Your task to perform on an android device: Open calendar and show me the first week of next month Image 0: 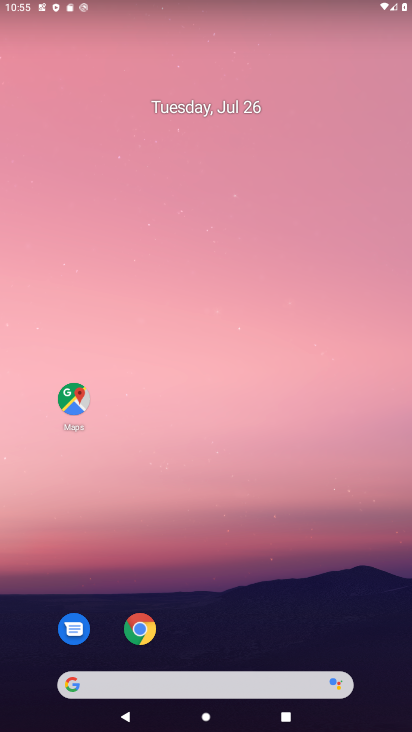
Step 0: drag from (223, 518) to (243, 177)
Your task to perform on an android device: Open calendar and show me the first week of next month Image 1: 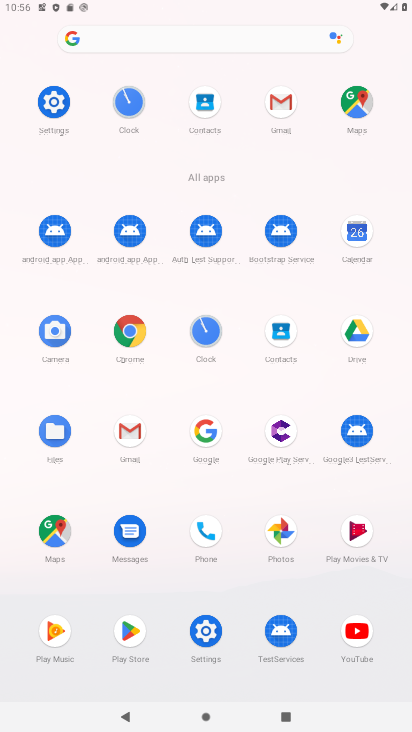
Step 1: click (357, 240)
Your task to perform on an android device: Open calendar and show me the first week of next month Image 2: 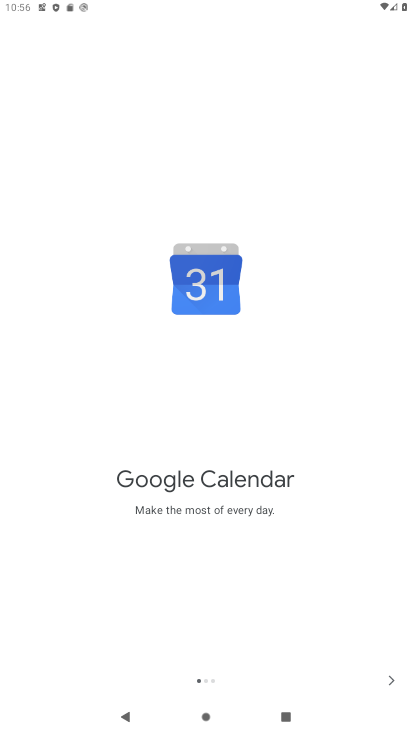
Step 2: click (390, 682)
Your task to perform on an android device: Open calendar and show me the first week of next month Image 3: 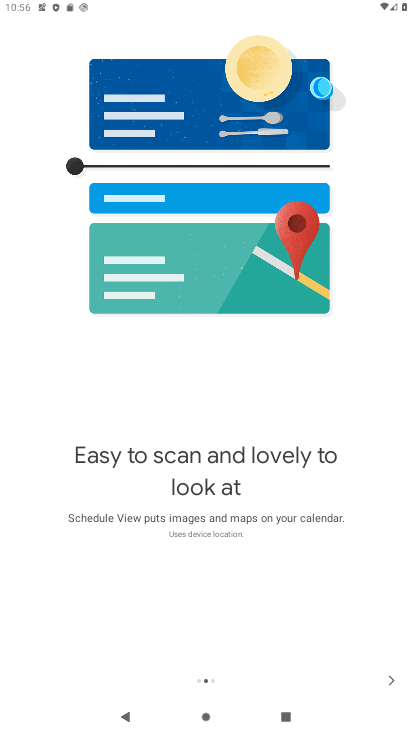
Step 3: click (390, 682)
Your task to perform on an android device: Open calendar and show me the first week of next month Image 4: 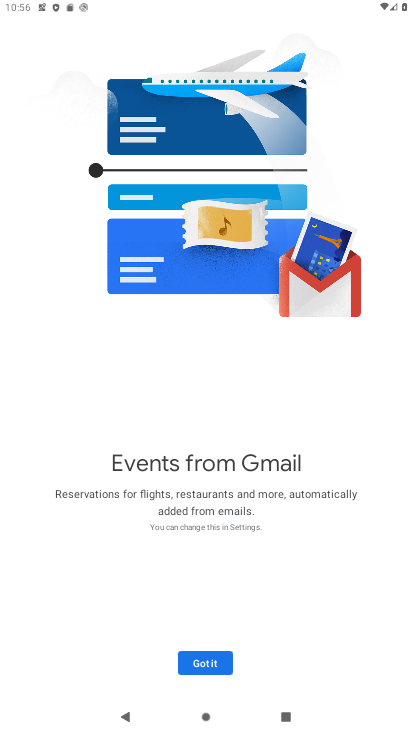
Step 4: click (214, 651)
Your task to perform on an android device: Open calendar and show me the first week of next month Image 5: 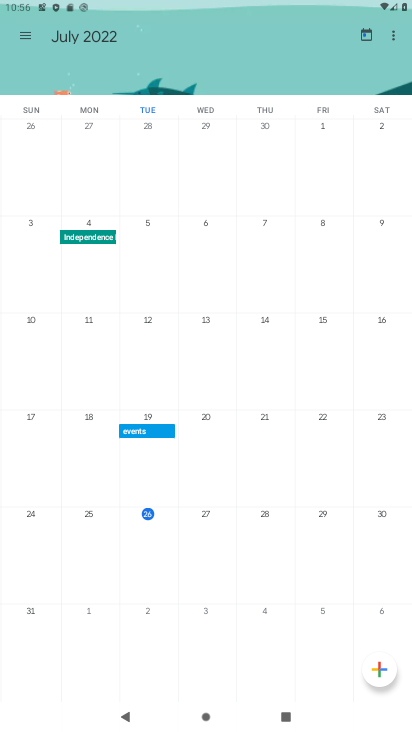
Step 5: click (96, 34)
Your task to perform on an android device: Open calendar and show me the first week of next month Image 6: 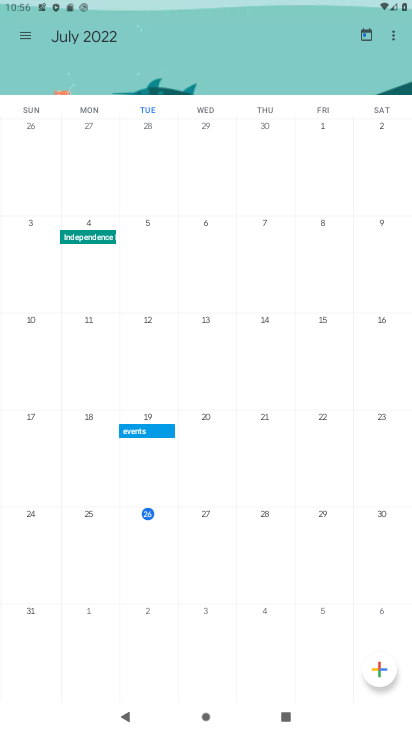
Step 6: click (96, 34)
Your task to perform on an android device: Open calendar and show me the first week of next month Image 7: 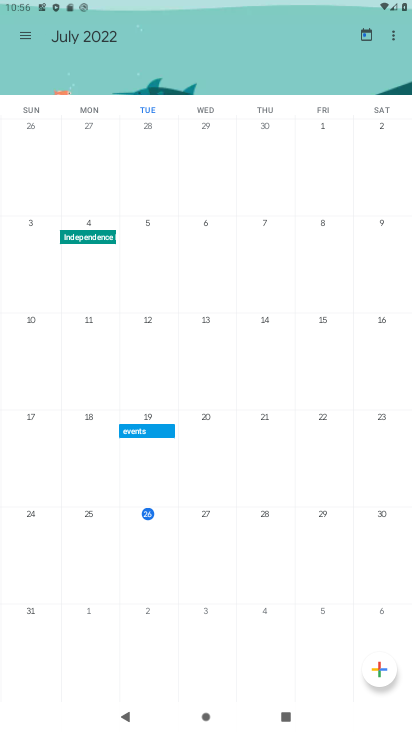
Step 7: drag from (96, 34) to (8, 123)
Your task to perform on an android device: Open calendar and show me the first week of next month Image 8: 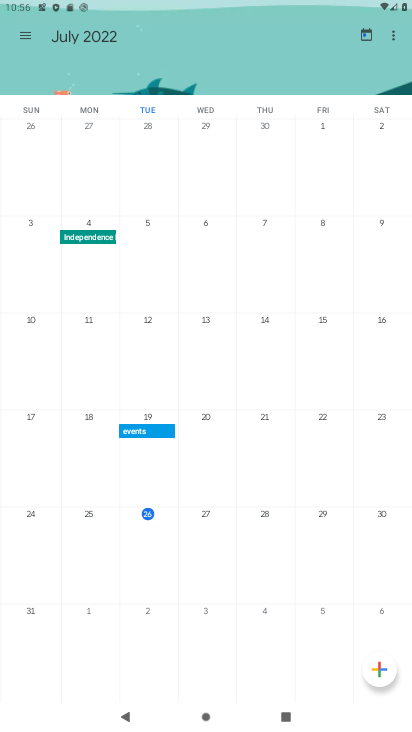
Step 8: drag from (8, 123) to (20, 44)
Your task to perform on an android device: Open calendar and show me the first week of next month Image 9: 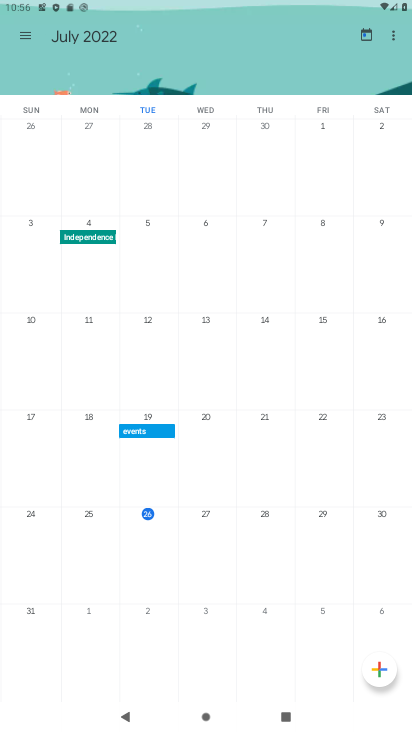
Step 9: click (20, 44)
Your task to perform on an android device: Open calendar and show me the first week of next month Image 10: 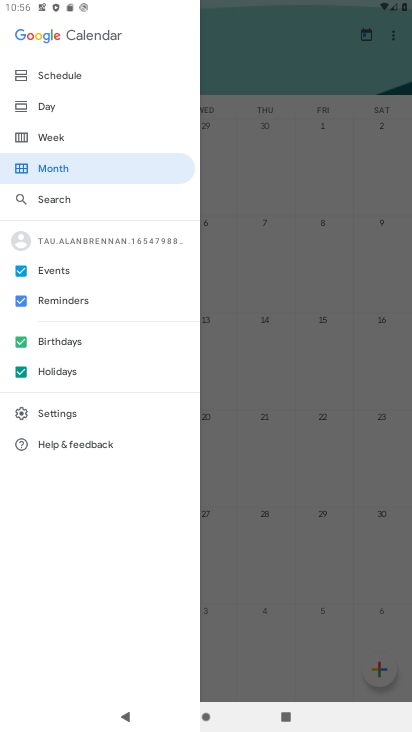
Step 10: click (58, 141)
Your task to perform on an android device: Open calendar and show me the first week of next month Image 11: 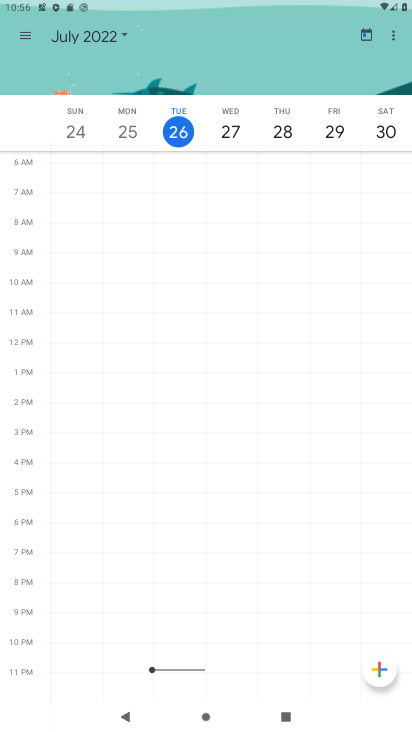
Step 11: click (76, 42)
Your task to perform on an android device: Open calendar and show me the first week of next month Image 12: 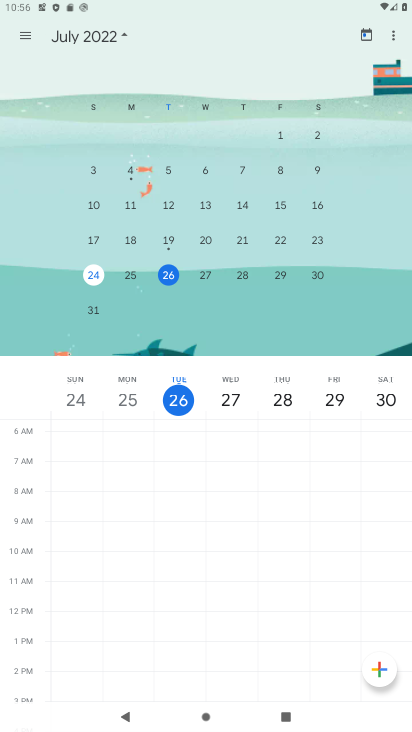
Step 12: drag from (286, 193) to (20, 220)
Your task to perform on an android device: Open calendar and show me the first week of next month Image 13: 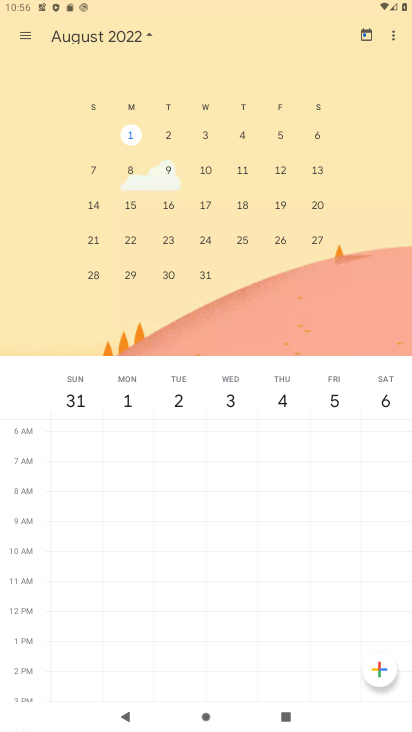
Step 13: click (133, 135)
Your task to perform on an android device: Open calendar and show me the first week of next month Image 14: 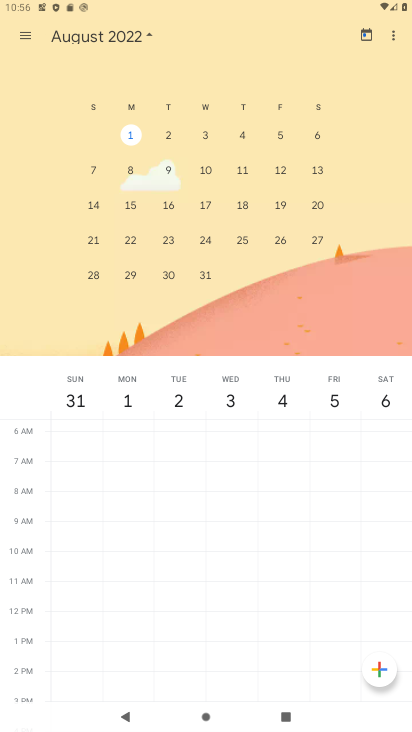
Step 14: task complete